Your task to perform on an android device: Open Yahoo.com Image 0: 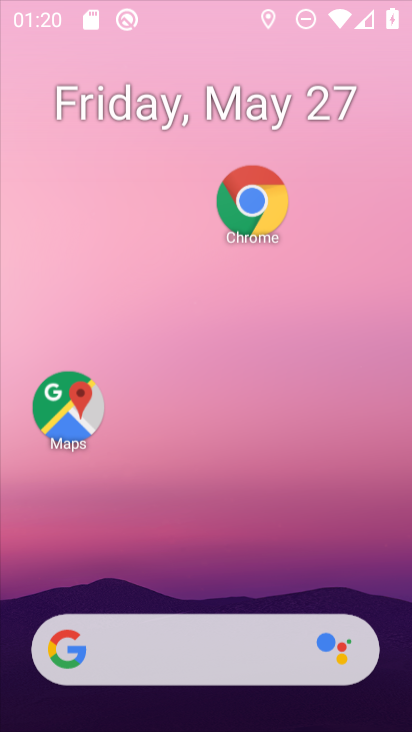
Step 0: click (254, 30)
Your task to perform on an android device: Open Yahoo.com Image 1: 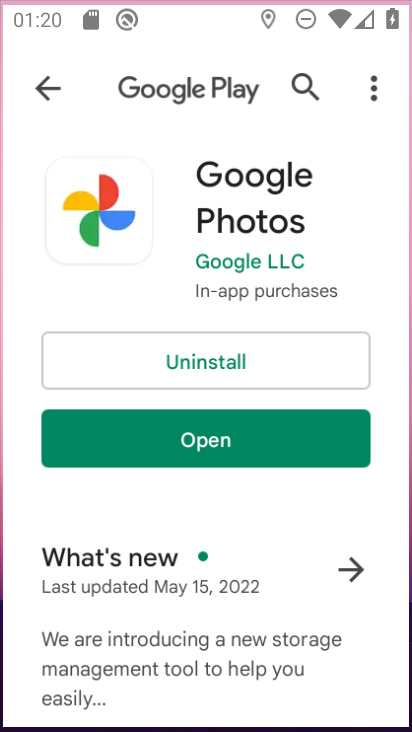
Step 1: drag from (200, 552) to (250, 3)
Your task to perform on an android device: Open Yahoo.com Image 2: 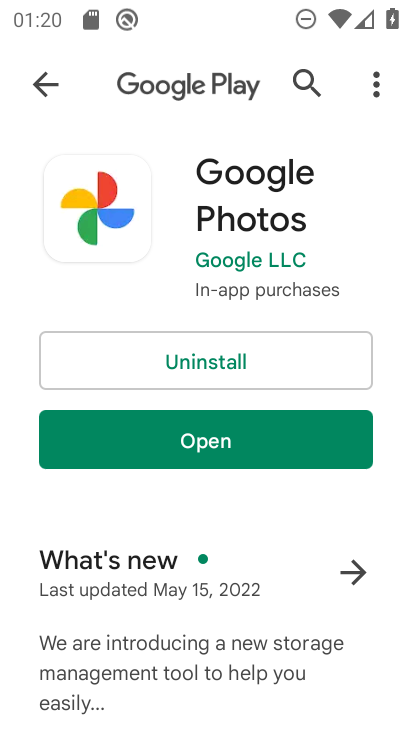
Step 2: press home button
Your task to perform on an android device: Open Yahoo.com Image 3: 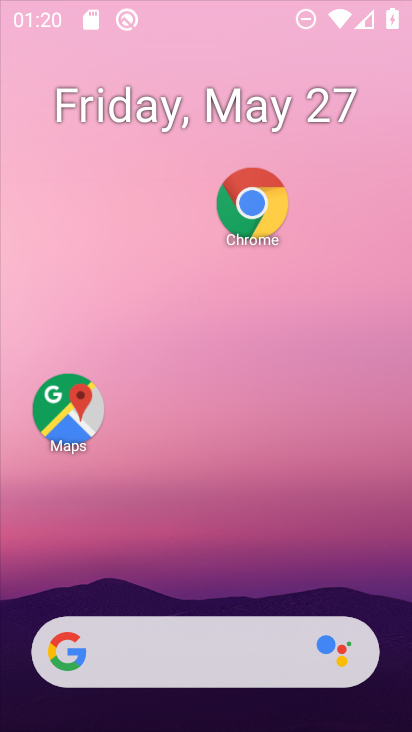
Step 3: drag from (231, 576) to (350, 2)
Your task to perform on an android device: Open Yahoo.com Image 4: 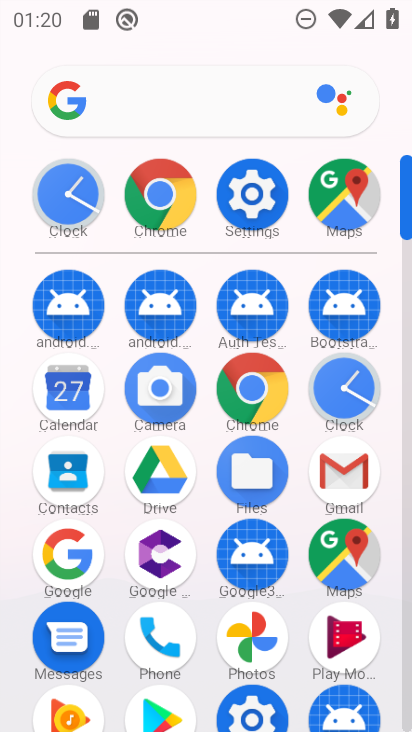
Step 4: click (161, 90)
Your task to perform on an android device: Open Yahoo.com Image 5: 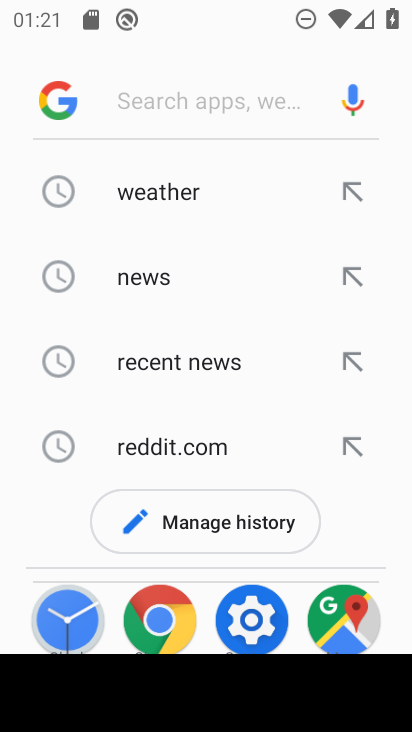
Step 5: type "Yahoo.com"
Your task to perform on an android device: Open Yahoo.com Image 6: 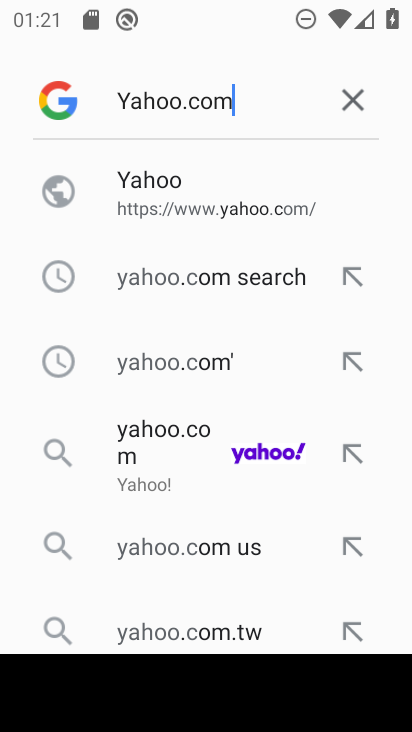
Step 6: type ""
Your task to perform on an android device: Open Yahoo.com Image 7: 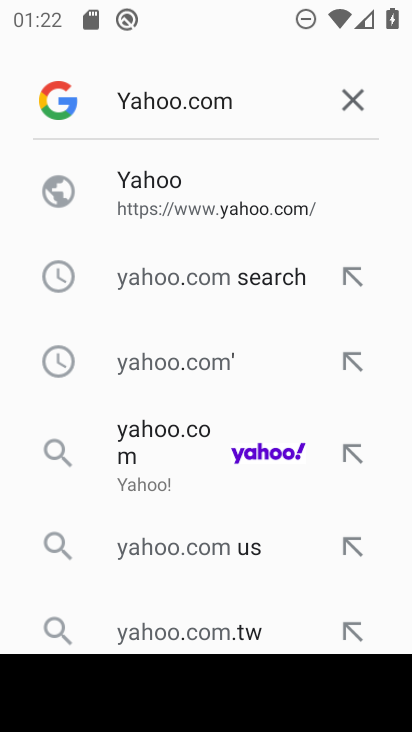
Step 7: click (183, 209)
Your task to perform on an android device: Open Yahoo.com Image 8: 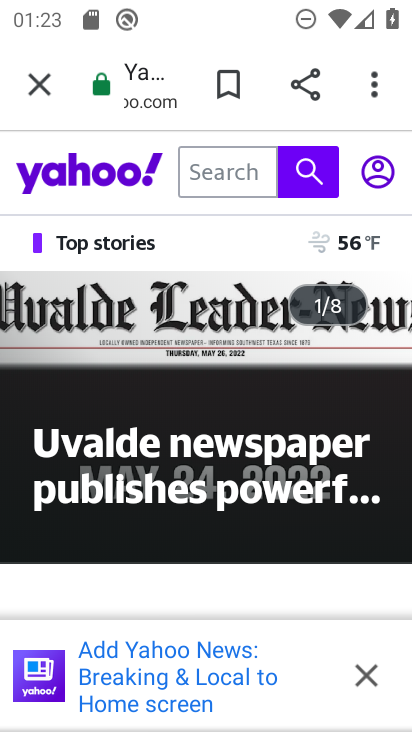
Step 8: task complete